Your task to perform on an android device: Open sound settings Image 0: 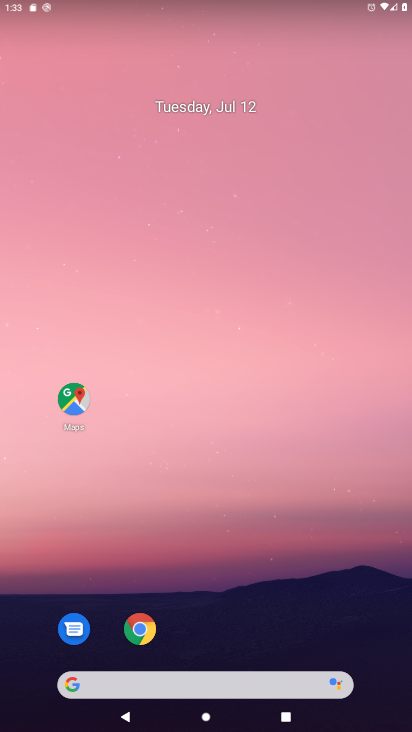
Step 0: drag from (191, 685) to (206, 232)
Your task to perform on an android device: Open sound settings Image 1: 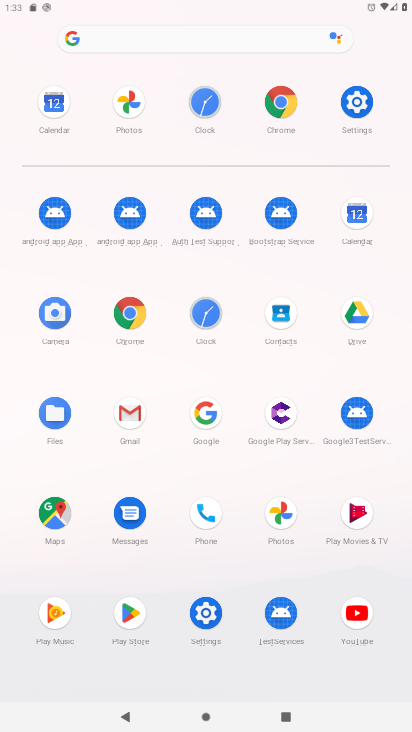
Step 1: click (360, 100)
Your task to perform on an android device: Open sound settings Image 2: 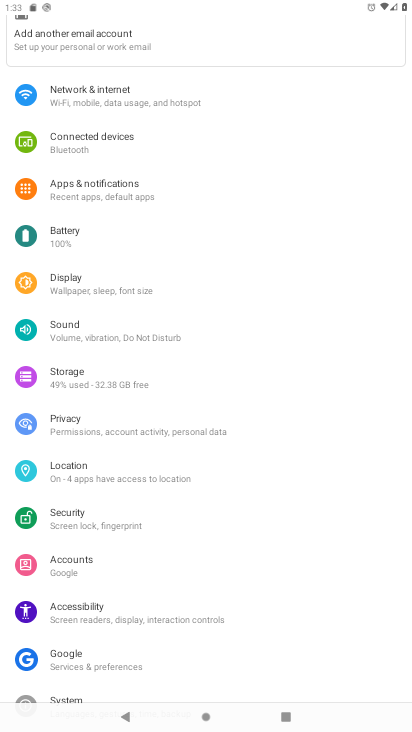
Step 2: click (84, 333)
Your task to perform on an android device: Open sound settings Image 3: 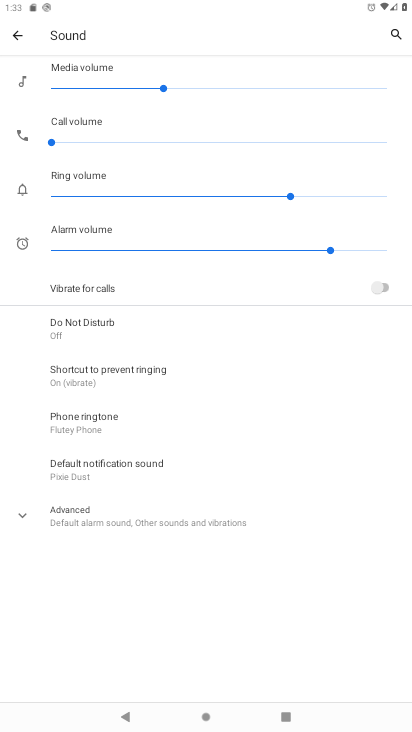
Step 3: task complete